Your task to perform on an android device: Open the calendar app, open the side menu, and click the "Day" option Image 0: 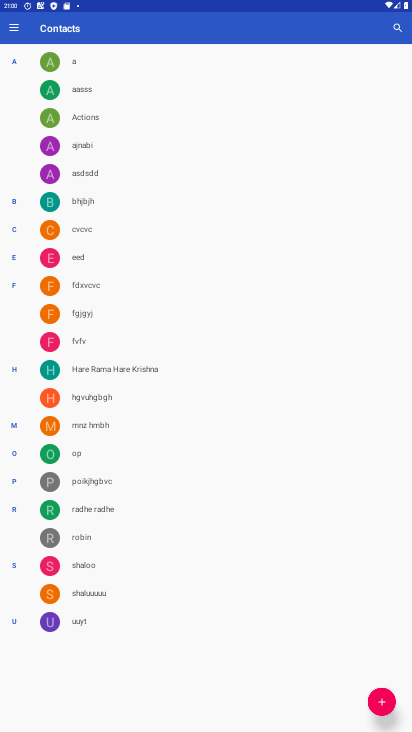
Step 0: press home button
Your task to perform on an android device: Open the calendar app, open the side menu, and click the "Day" option Image 1: 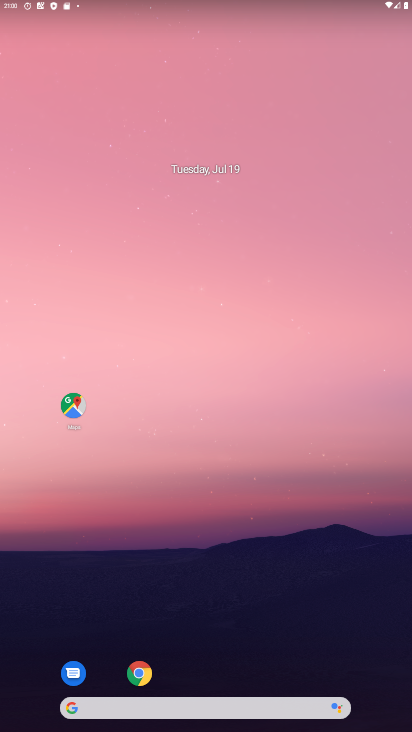
Step 1: drag from (234, 649) to (79, 0)
Your task to perform on an android device: Open the calendar app, open the side menu, and click the "Day" option Image 2: 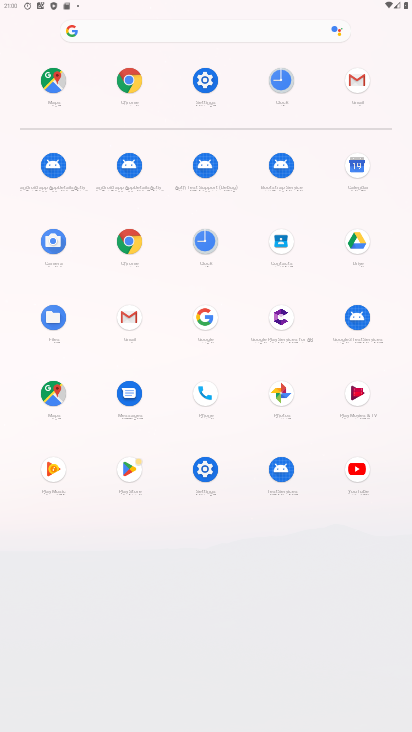
Step 2: click (359, 180)
Your task to perform on an android device: Open the calendar app, open the side menu, and click the "Day" option Image 3: 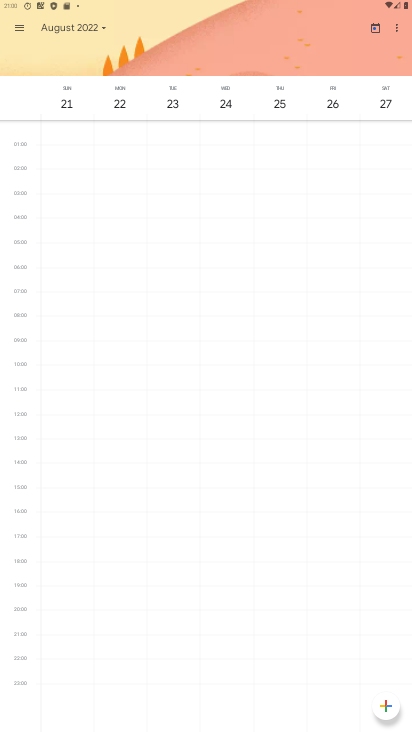
Step 3: click (15, 24)
Your task to perform on an android device: Open the calendar app, open the side menu, and click the "Day" option Image 4: 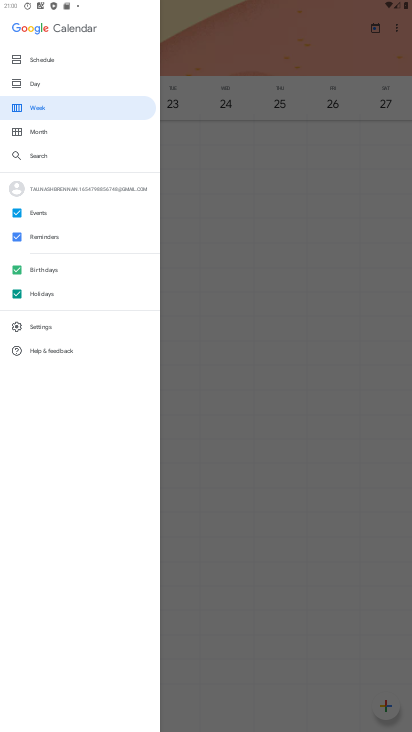
Step 4: click (29, 82)
Your task to perform on an android device: Open the calendar app, open the side menu, and click the "Day" option Image 5: 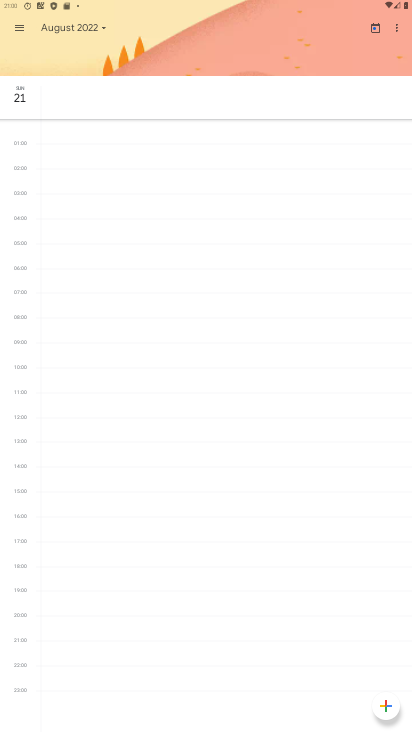
Step 5: task complete